Your task to perform on an android device: Open the web browser Image 0: 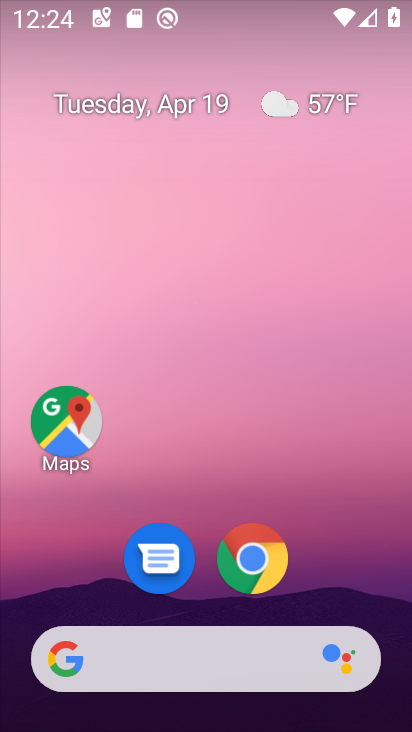
Step 0: click (256, 557)
Your task to perform on an android device: Open the web browser Image 1: 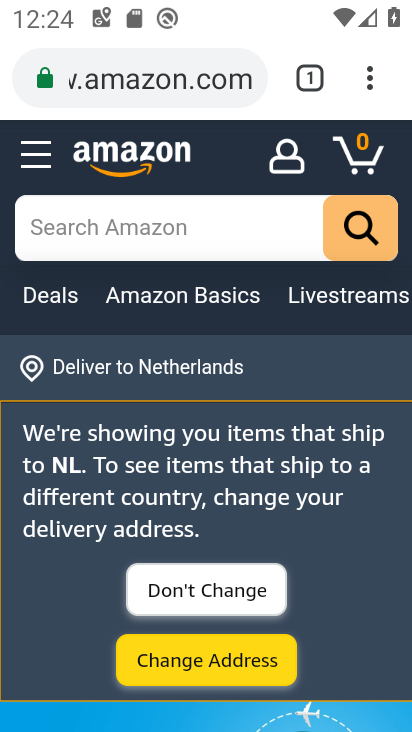
Step 1: task complete